Your task to perform on an android device: What is the news today? Image 0: 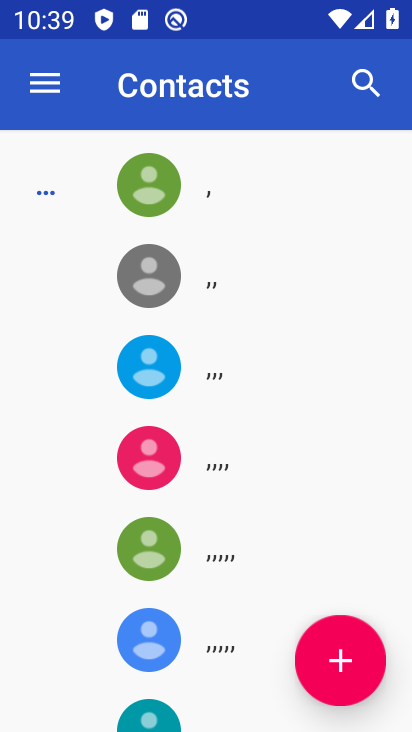
Step 0: press home button
Your task to perform on an android device: What is the news today? Image 1: 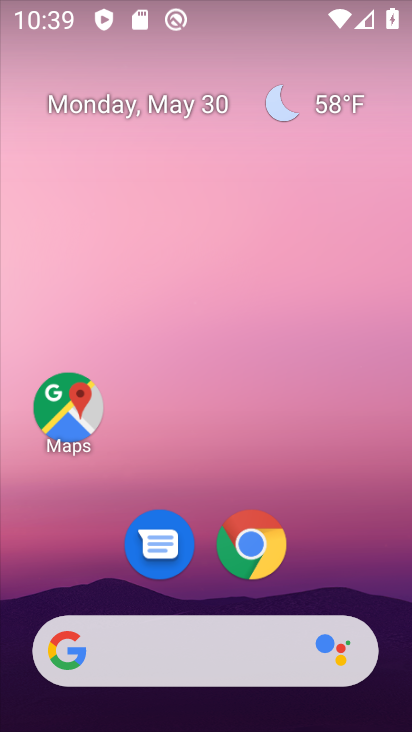
Step 1: click (202, 670)
Your task to perform on an android device: What is the news today? Image 2: 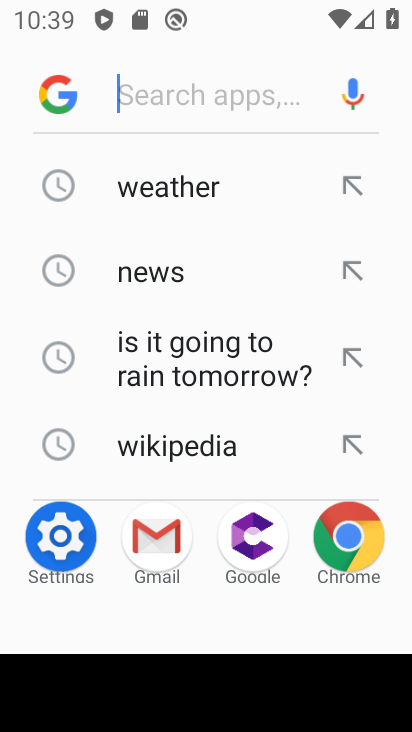
Step 2: click (214, 272)
Your task to perform on an android device: What is the news today? Image 3: 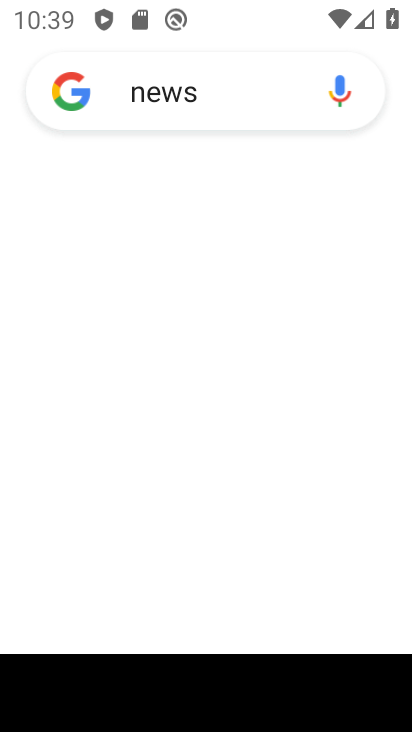
Step 3: task complete